Your task to perform on an android device: Open wifi settings Image 0: 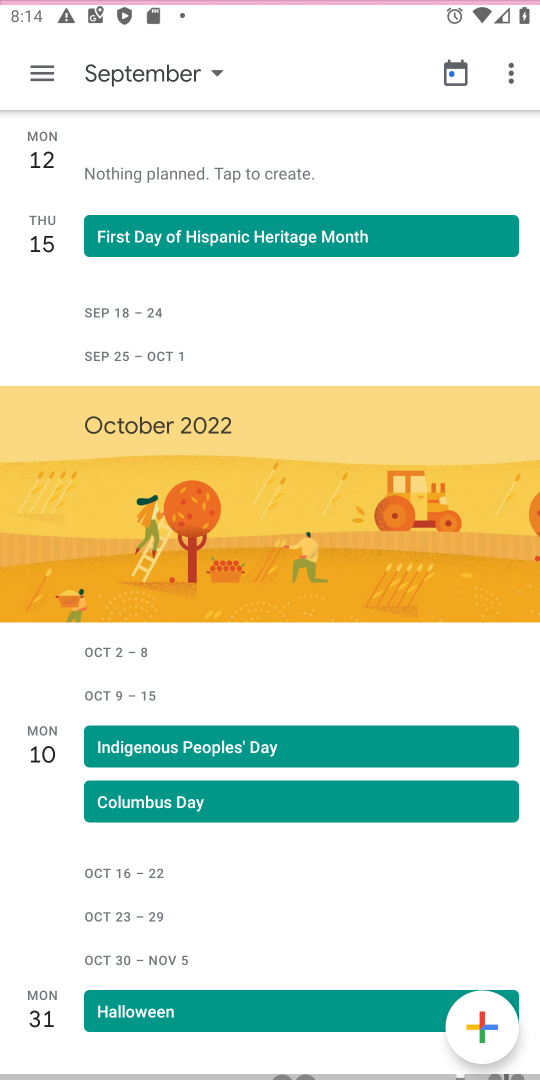
Step 0: press home button
Your task to perform on an android device: Open wifi settings Image 1: 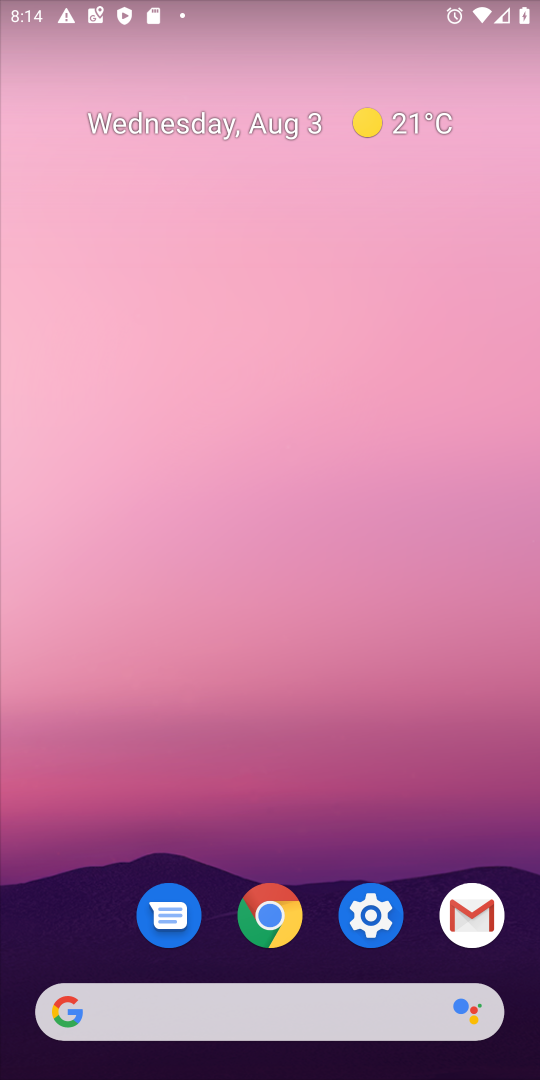
Step 1: drag from (383, 862) to (407, 218)
Your task to perform on an android device: Open wifi settings Image 2: 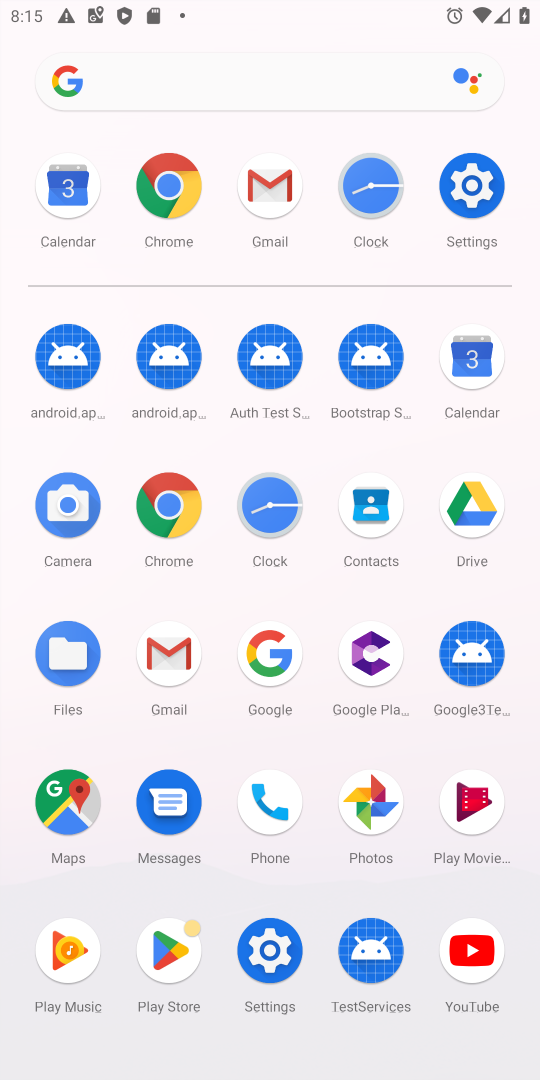
Step 2: click (458, 189)
Your task to perform on an android device: Open wifi settings Image 3: 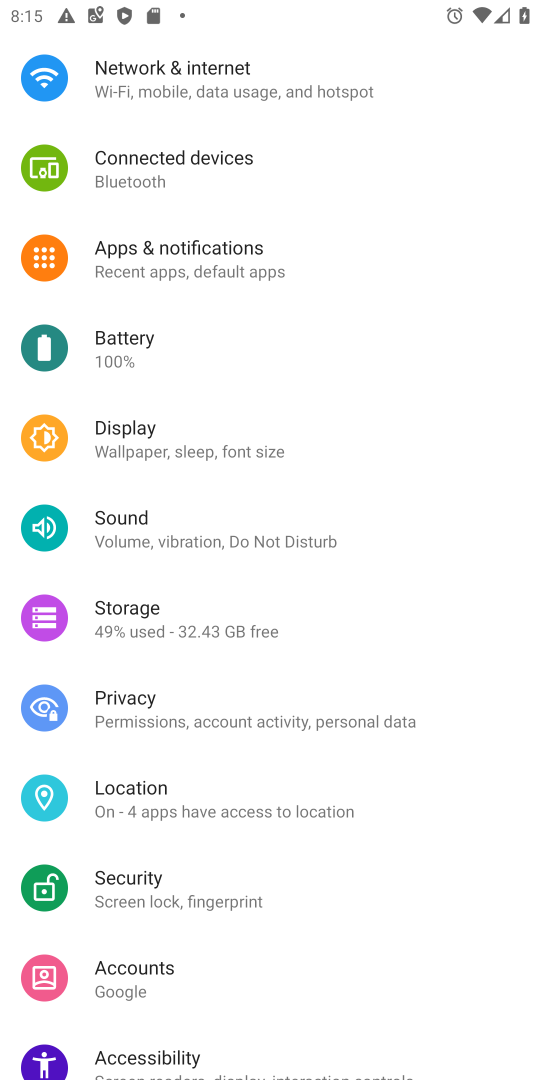
Step 3: click (189, 99)
Your task to perform on an android device: Open wifi settings Image 4: 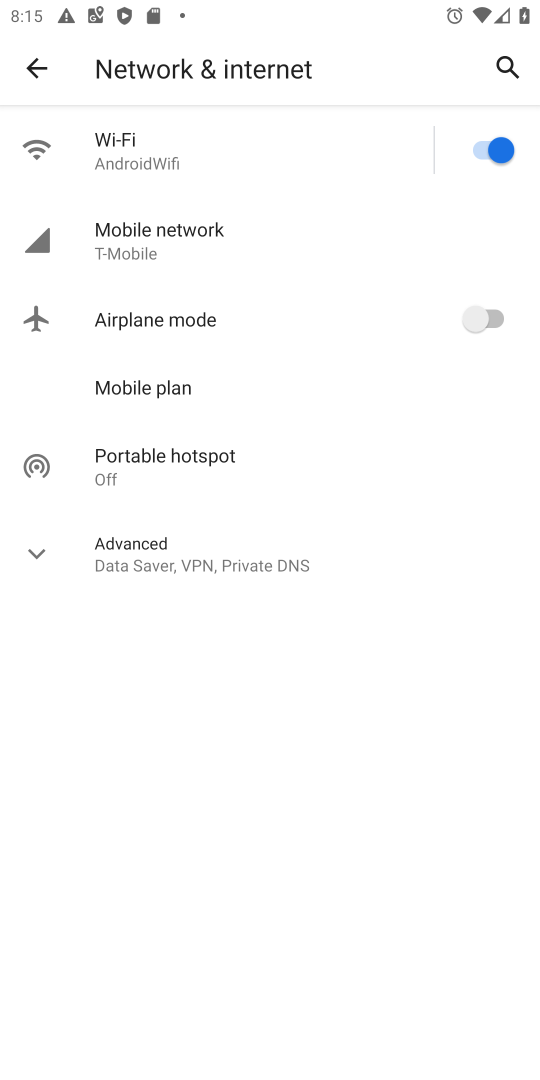
Step 4: click (201, 151)
Your task to perform on an android device: Open wifi settings Image 5: 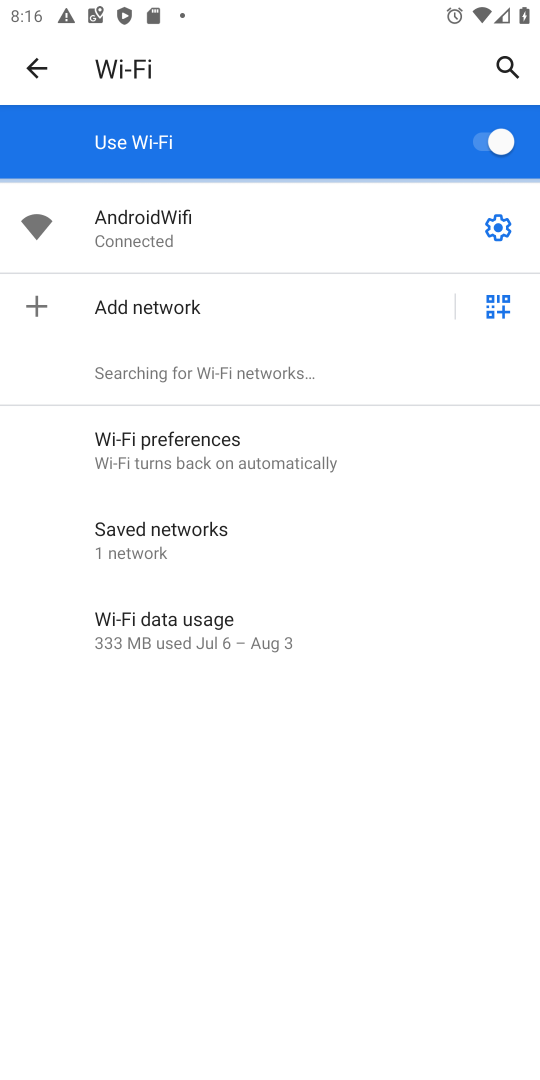
Step 5: task complete